Your task to perform on an android device: change the upload size in google photos Image 0: 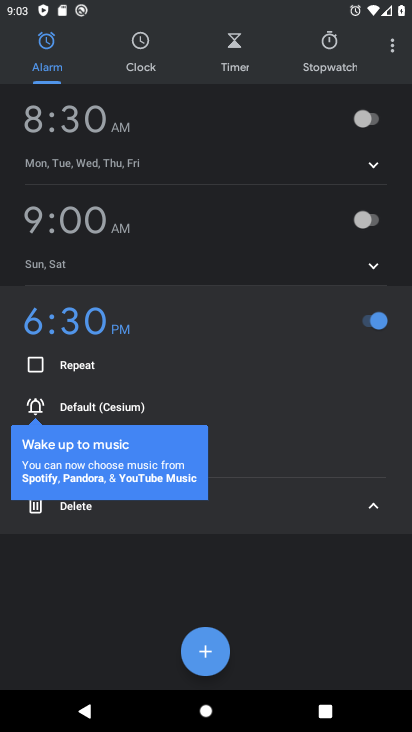
Step 0: press home button
Your task to perform on an android device: change the upload size in google photos Image 1: 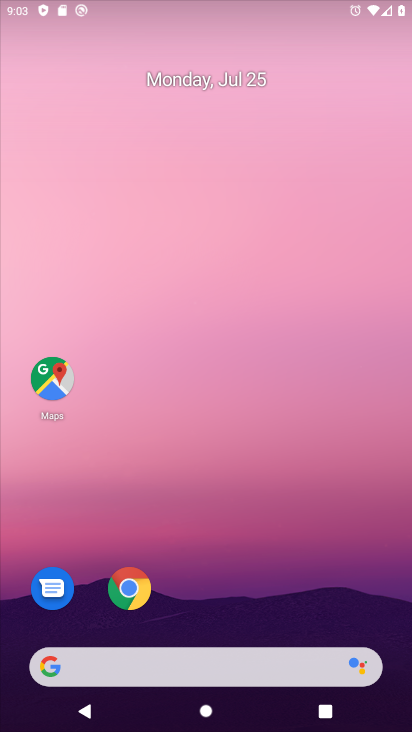
Step 1: drag from (236, 591) to (245, 80)
Your task to perform on an android device: change the upload size in google photos Image 2: 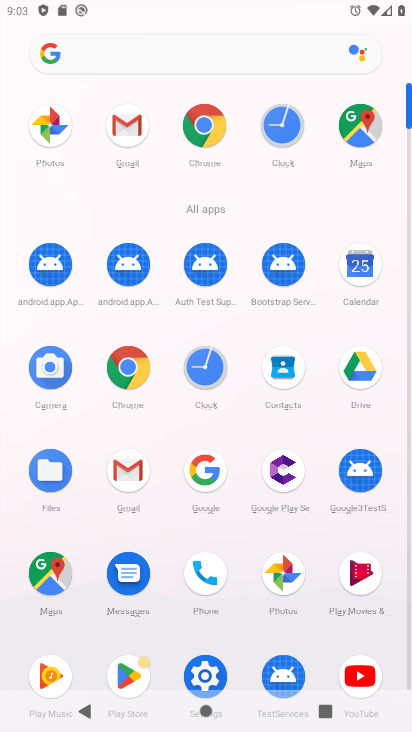
Step 2: click (284, 570)
Your task to perform on an android device: change the upload size in google photos Image 3: 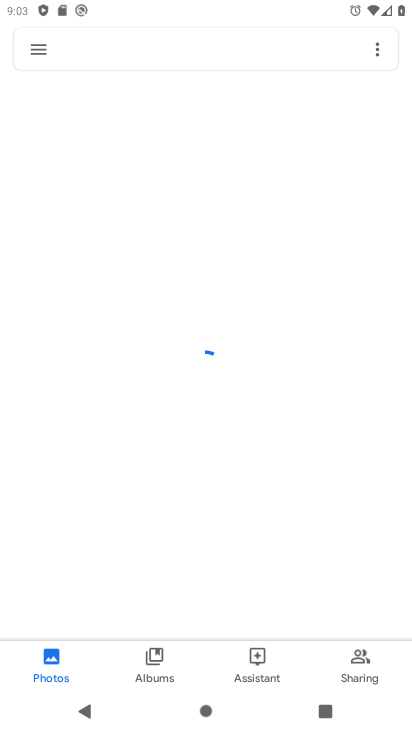
Step 3: click (36, 48)
Your task to perform on an android device: change the upload size in google photos Image 4: 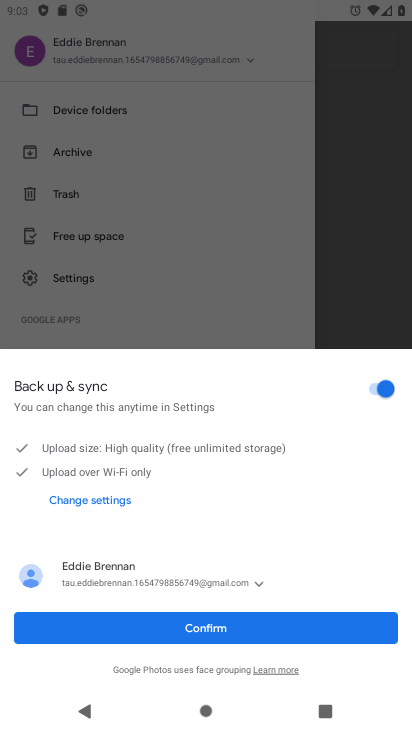
Step 4: click (210, 629)
Your task to perform on an android device: change the upload size in google photos Image 5: 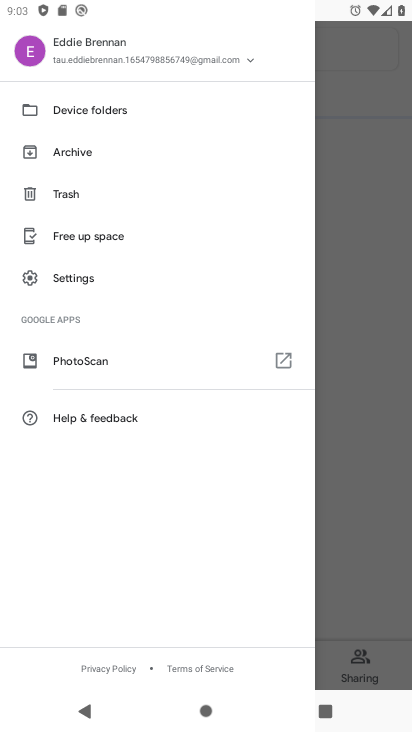
Step 5: click (52, 278)
Your task to perform on an android device: change the upload size in google photos Image 6: 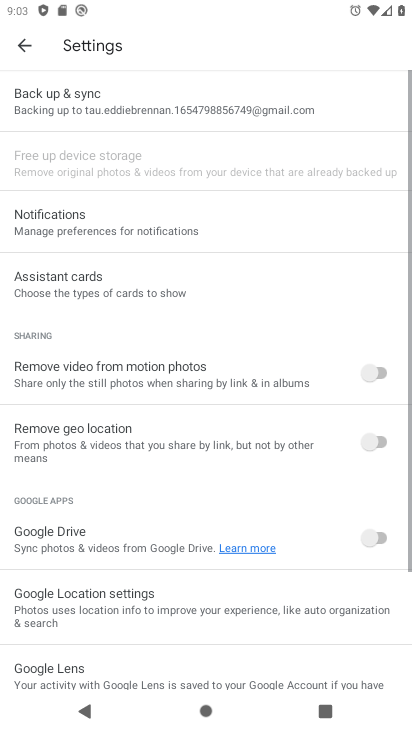
Step 6: click (59, 98)
Your task to perform on an android device: change the upload size in google photos Image 7: 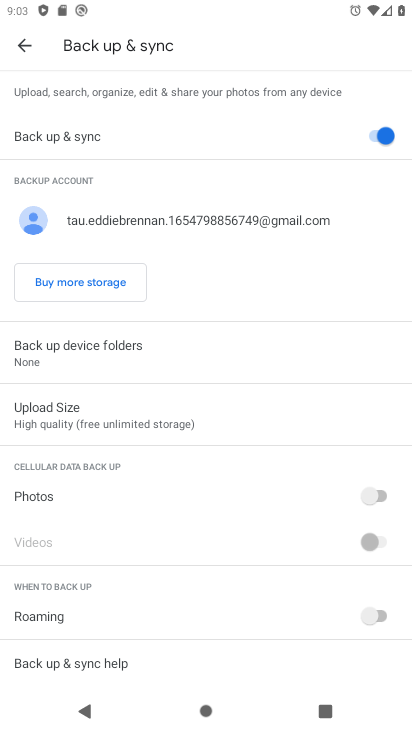
Step 7: click (46, 417)
Your task to perform on an android device: change the upload size in google photos Image 8: 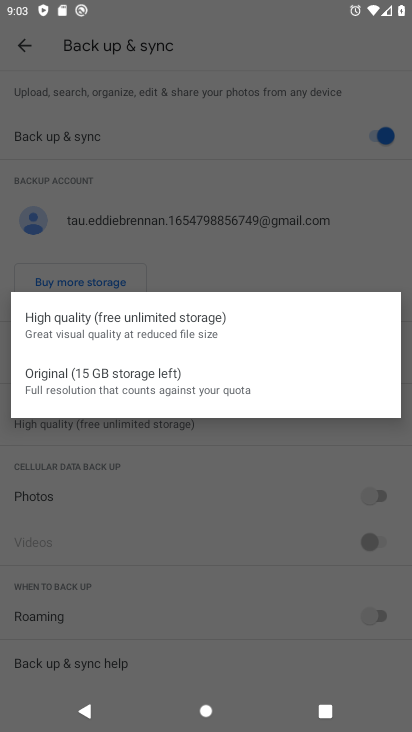
Step 8: click (69, 388)
Your task to perform on an android device: change the upload size in google photos Image 9: 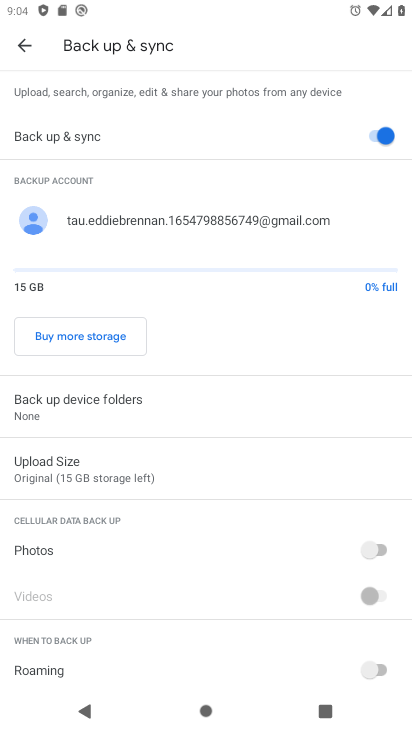
Step 9: task complete